Your task to perform on an android device: open a bookmark in the chrome app Image 0: 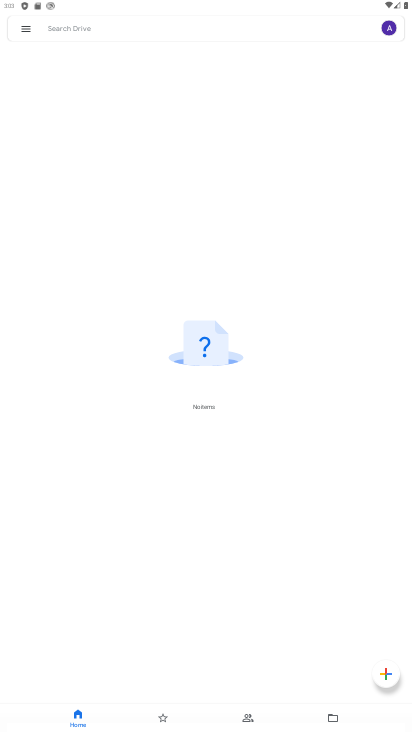
Step 0: press home button
Your task to perform on an android device: open a bookmark in the chrome app Image 1: 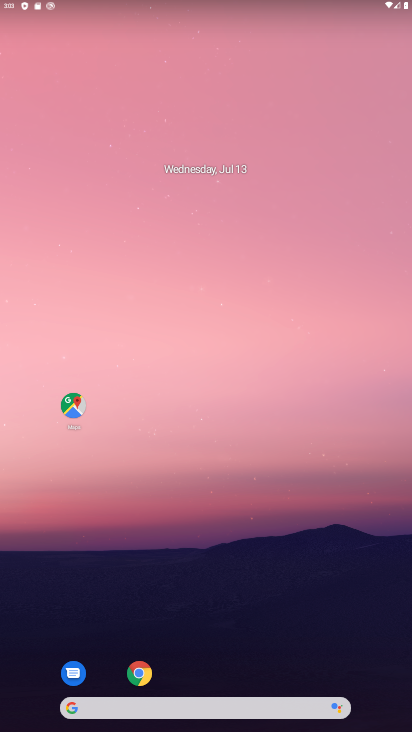
Step 1: click (146, 670)
Your task to perform on an android device: open a bookmark in the chrome app Image 2: 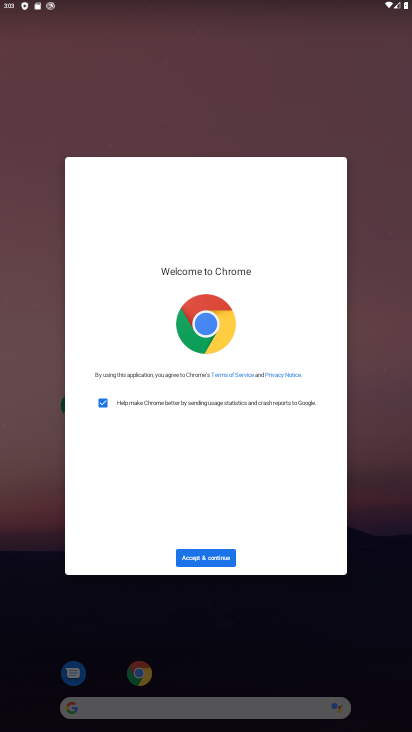
Step 2: click (210, 561)
Your task to perform on an android device: open a bookmark in the chrome app Image 3: 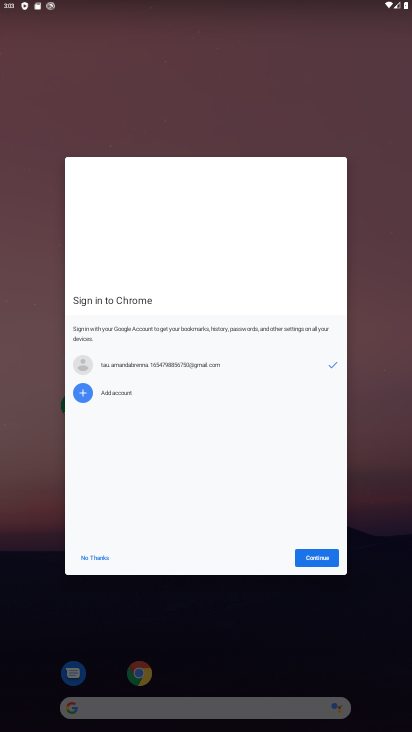
Step 3: click (210, 561)
Your task to perform on an android device: open a bookmark in the chrome app Image 4: 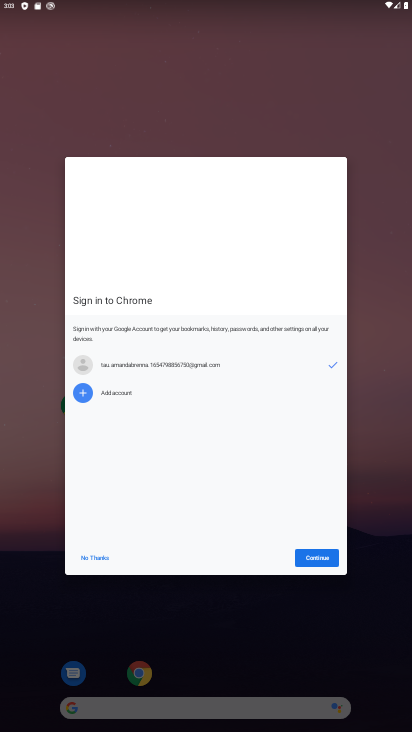
Step 4: click (318, 557)
Your task to perform on an android device: open a bookmark in the chrome app Image 5: 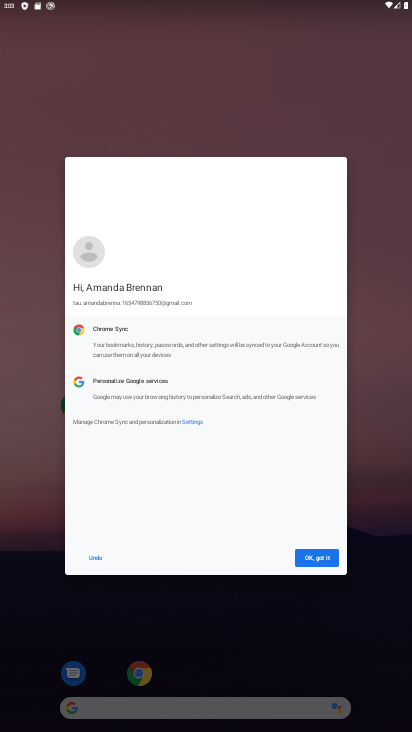
Step 5: click (318, 557)
Your task to perform on an android device: open a bookmark in the chrome app Image 6: 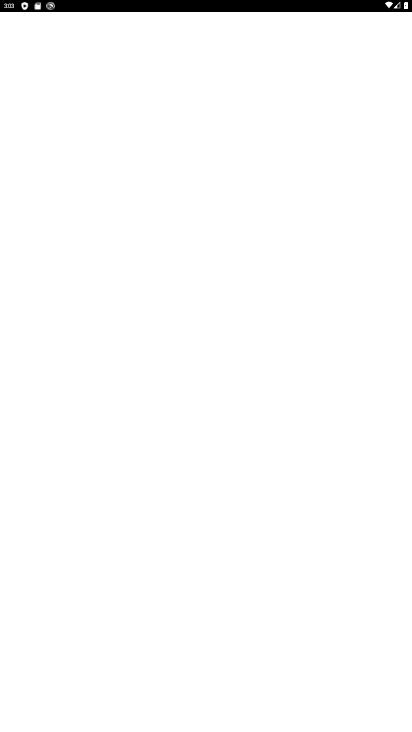
Step 6: click (318, 557)
Your task to perform on an android device: open a bookmark in the chrome app Image 7: 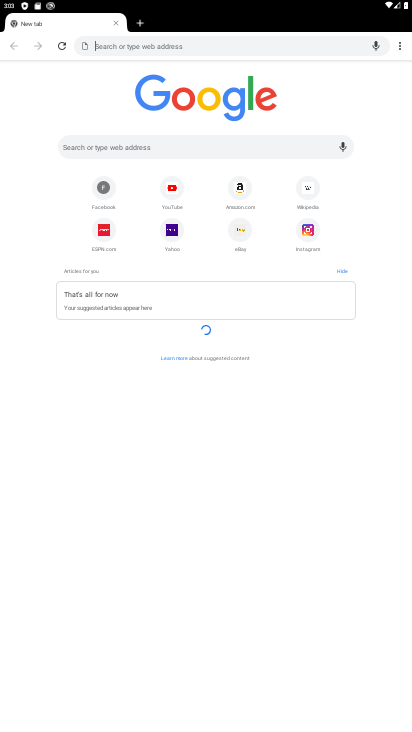
Step 7: click (399, 45)
Your task to perform on an android device: open a bookmark in the chrome app Image 8: 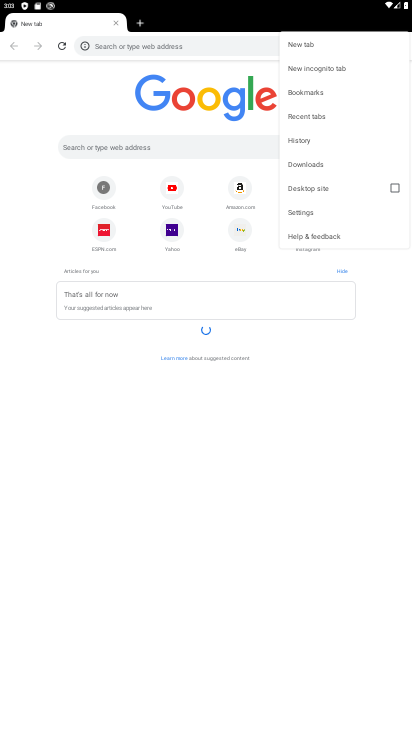
Step 8: click (316, 97)
Your task to perform on an android device: open a bookmark in the chrome app Image 9: 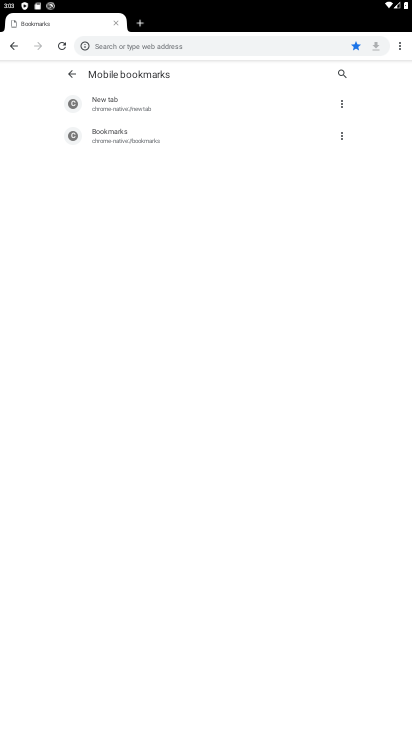
Step 9: click (150, 146)
Your task to perform on an android device: open a bookmark in the chrome app Image 10: 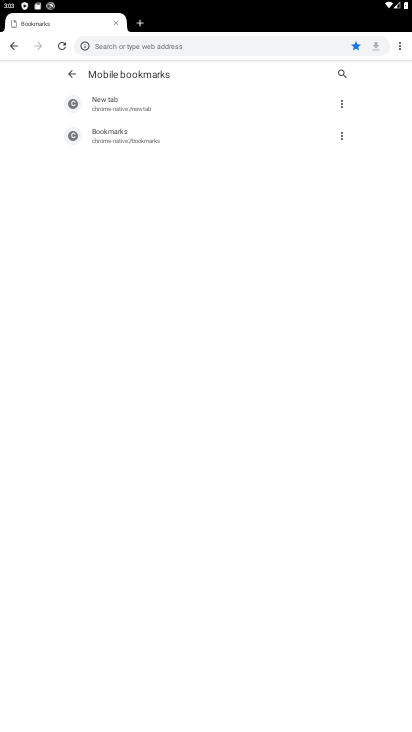
Step 10: click (144, 136)
Your task to perform on an android device: open a bookmark in the chrome app Image 11: 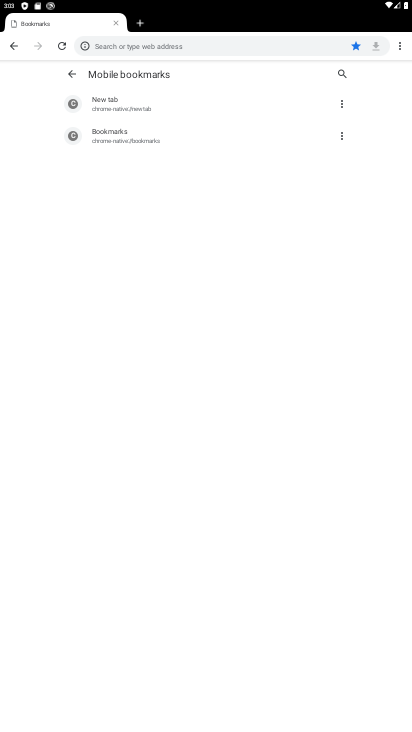
Step 11: click (137, 106)
Your task to perform on an android device: open a bookmark in the chrome app Image 12: 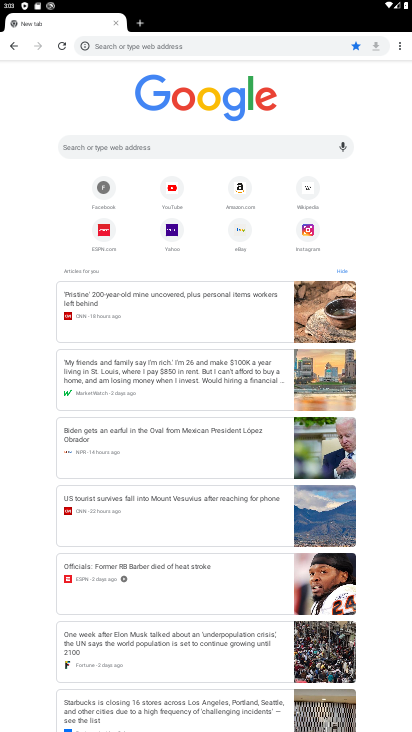
Step 12: task complete